Your task to perform on an android device: turn on javascript in the chrome app Image 0: 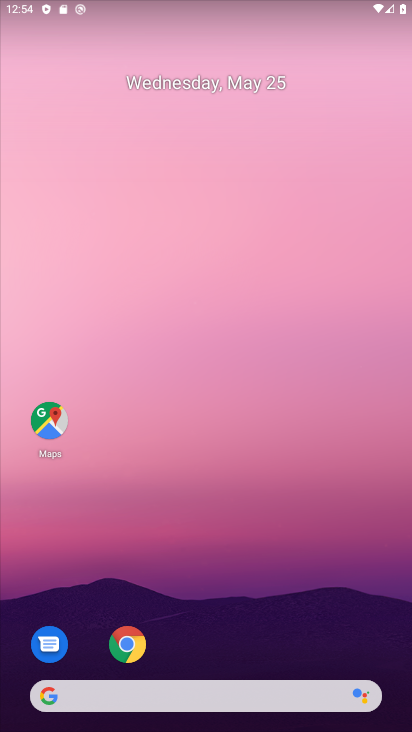
Step 0: click (137, 646)
Your task to perform on an android device: turn on javascript in the chrome app Image 1: 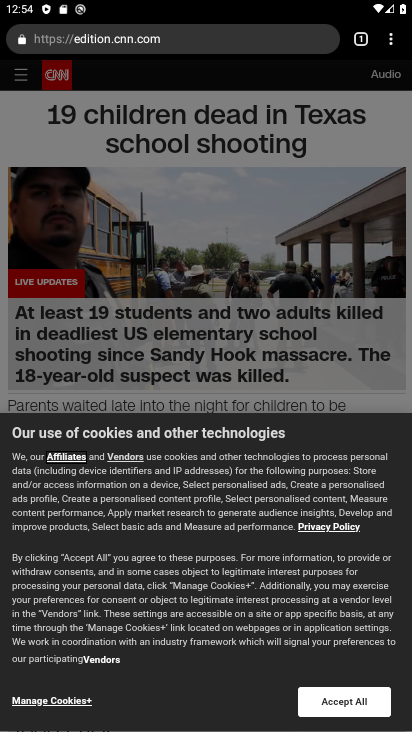
Step 1: click (388, 38)
Your task to perform on an android device: turn on javascript in the chrome app Image 2: 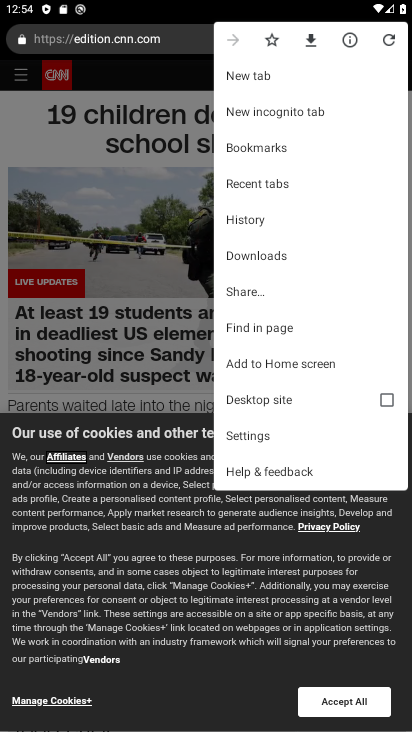
Step 2: click (271, 441)
Your task to perform on an android device: turn on javascript in the chrome app Image 3: 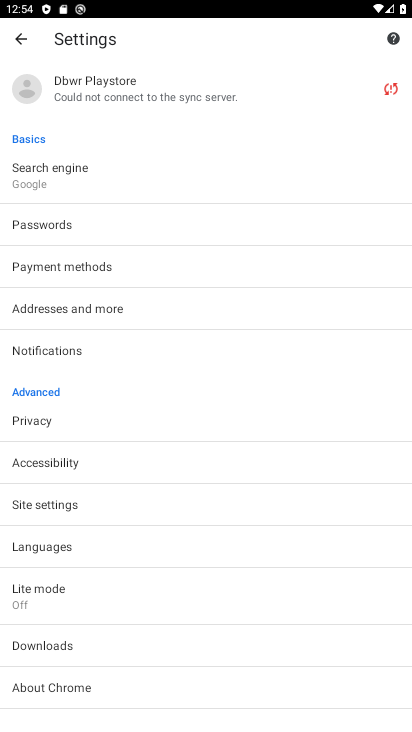
Step 3: click (71, 512)
Your task to perform on an android device: turn on javascript in the chrome app Image 4: 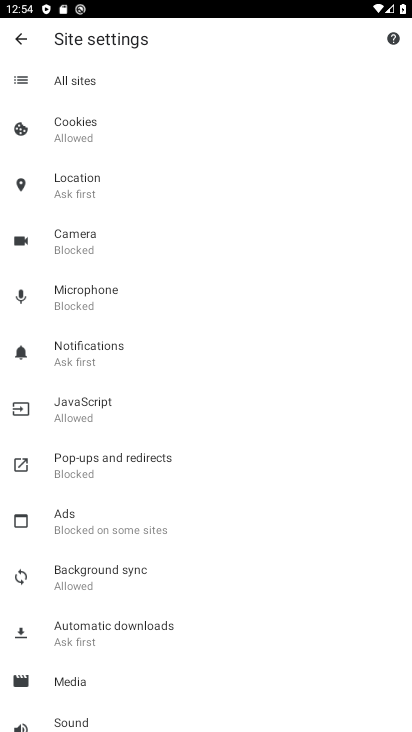
Step 4: click (97, 411)
Your task to perform on an android device: turn on javascript in the chrome app Image 5: 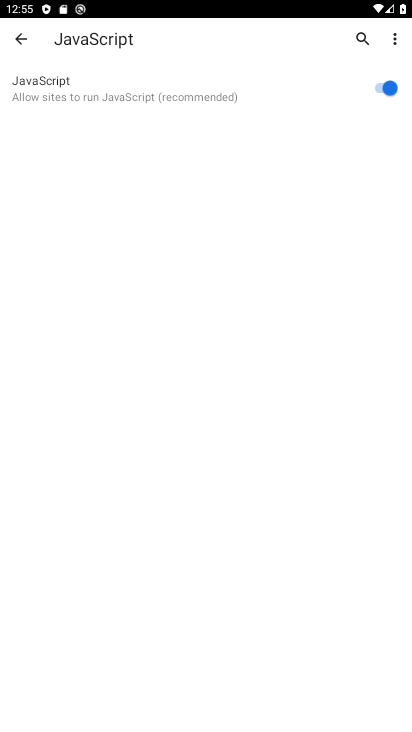
Step 5: task complete